Your task to perform on an android device: open app "ZOOM Cloud Meetings" (install if not already installed) Image 0: 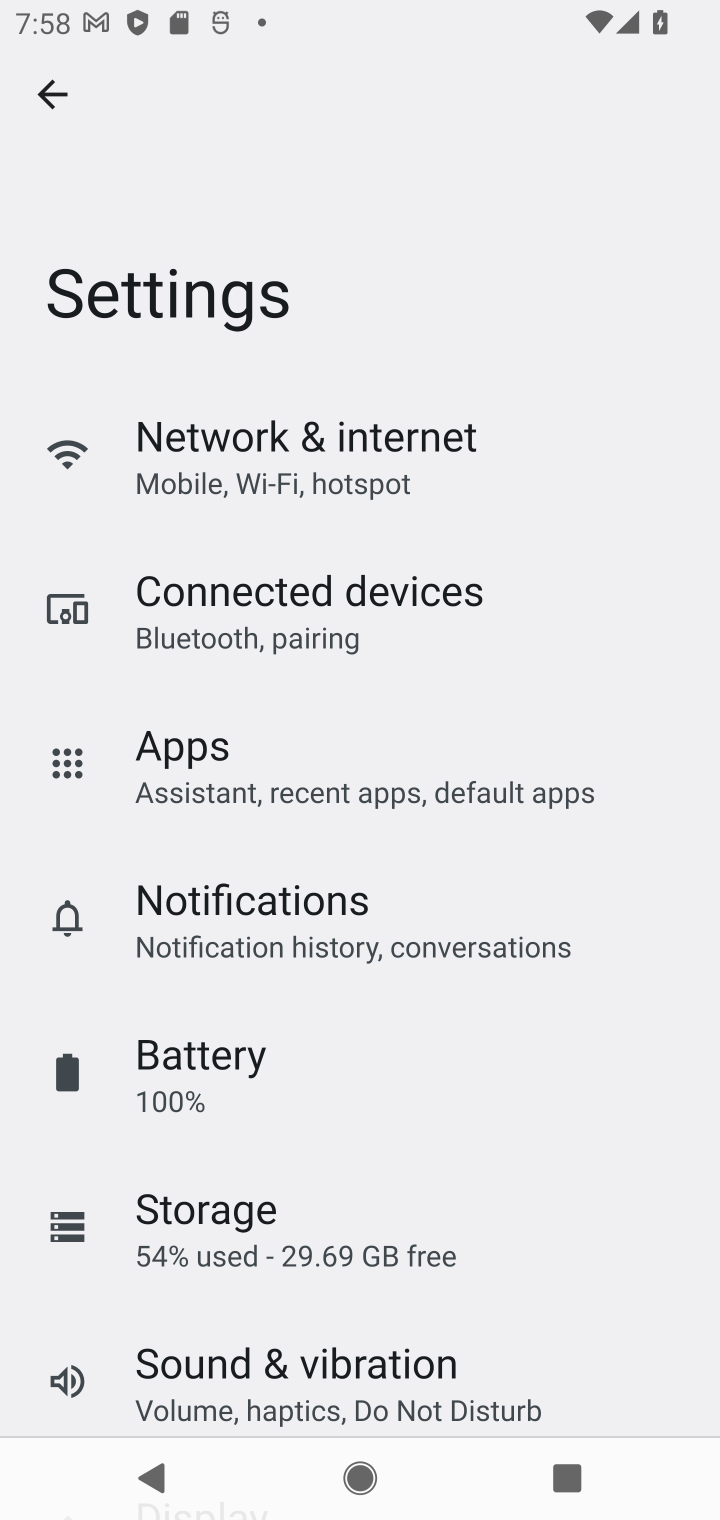
Step 0: press back button
Your task to perform on an android device: open app "ZOOM Cloud Meetings" (install if not already installed) Image 1: 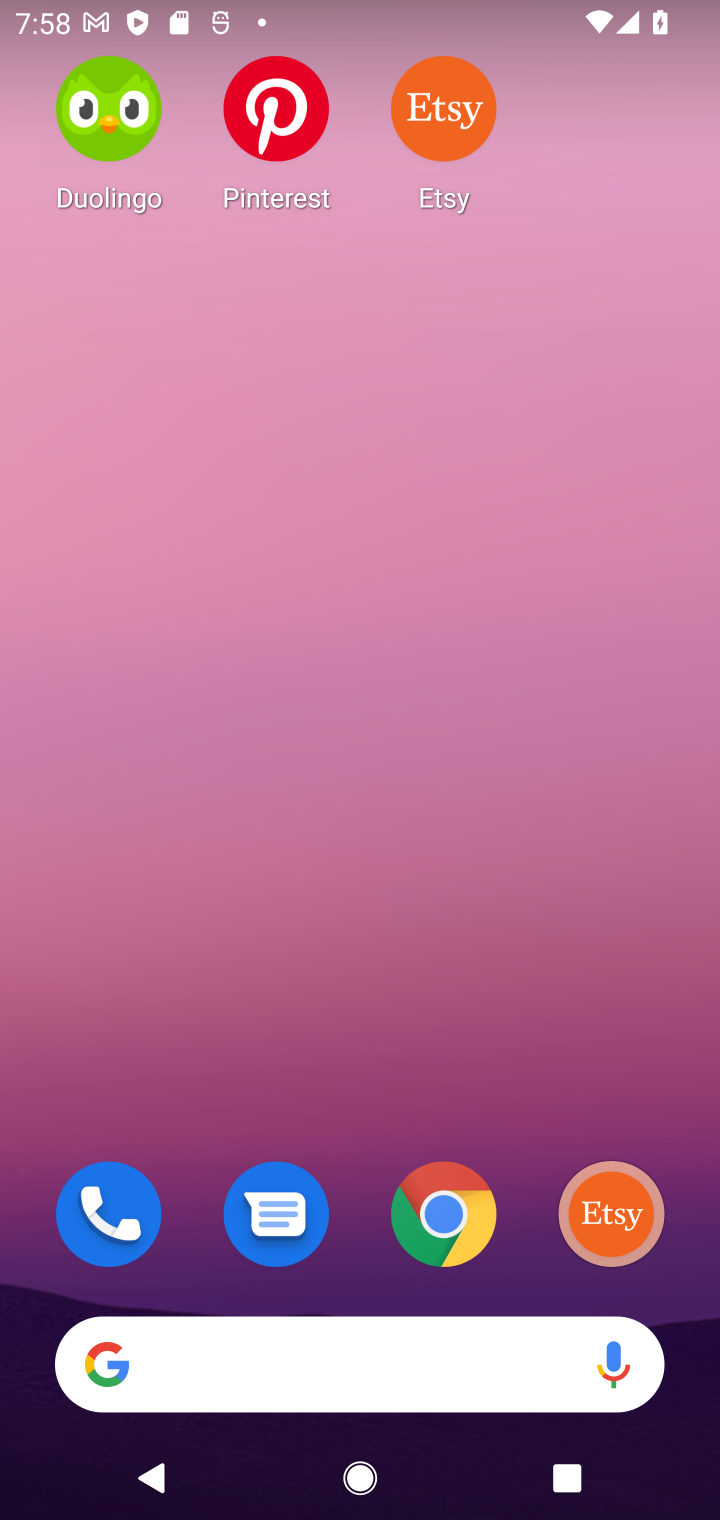
Step 1: drag from (359, 1093) to (387, 74)
Your task to perform on an android device: open app "ZOOM Cloud Meetings" (install if not already installed) Image 2: 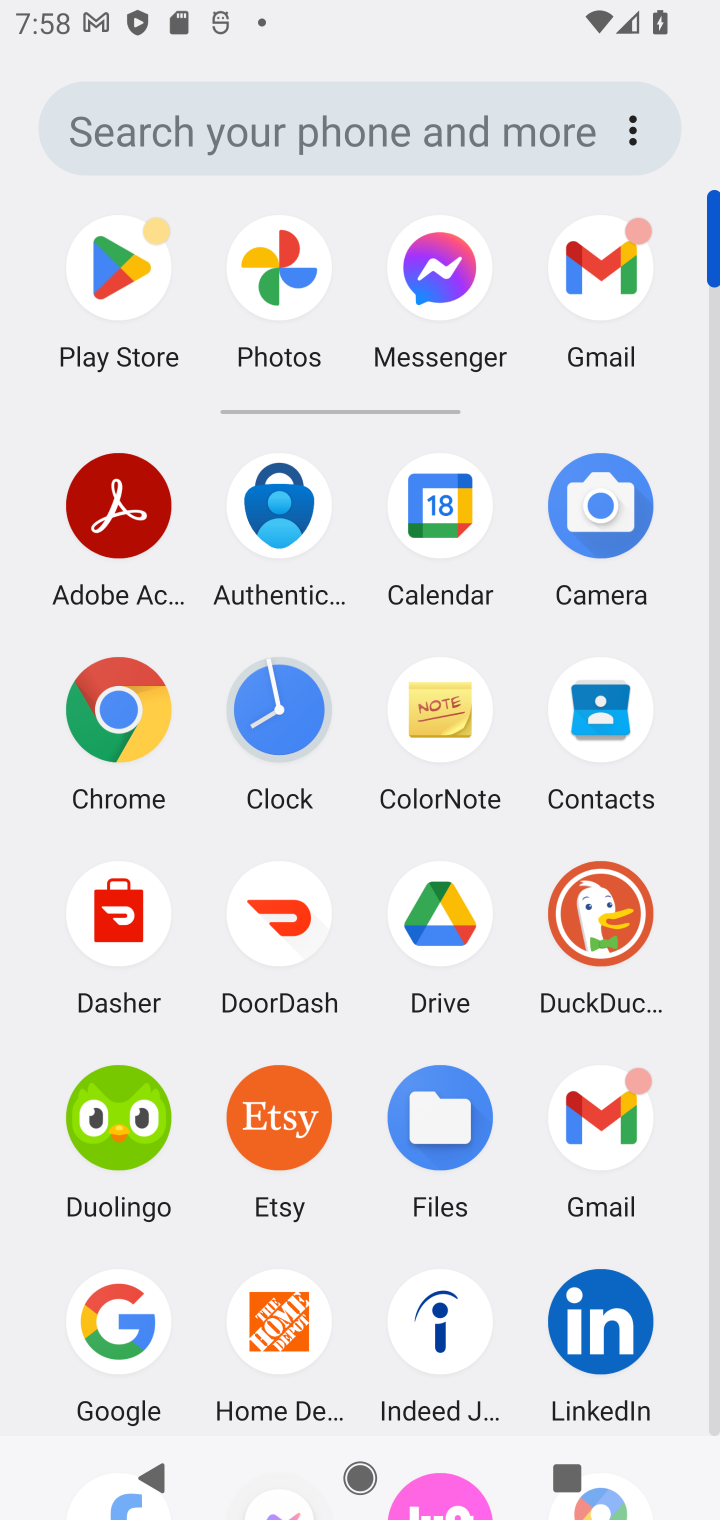
Step 2: click (140, 248)
Your task to perform on an android device: open app "ZOOM Cloud Meetings" (install if not already installed) Image 3: 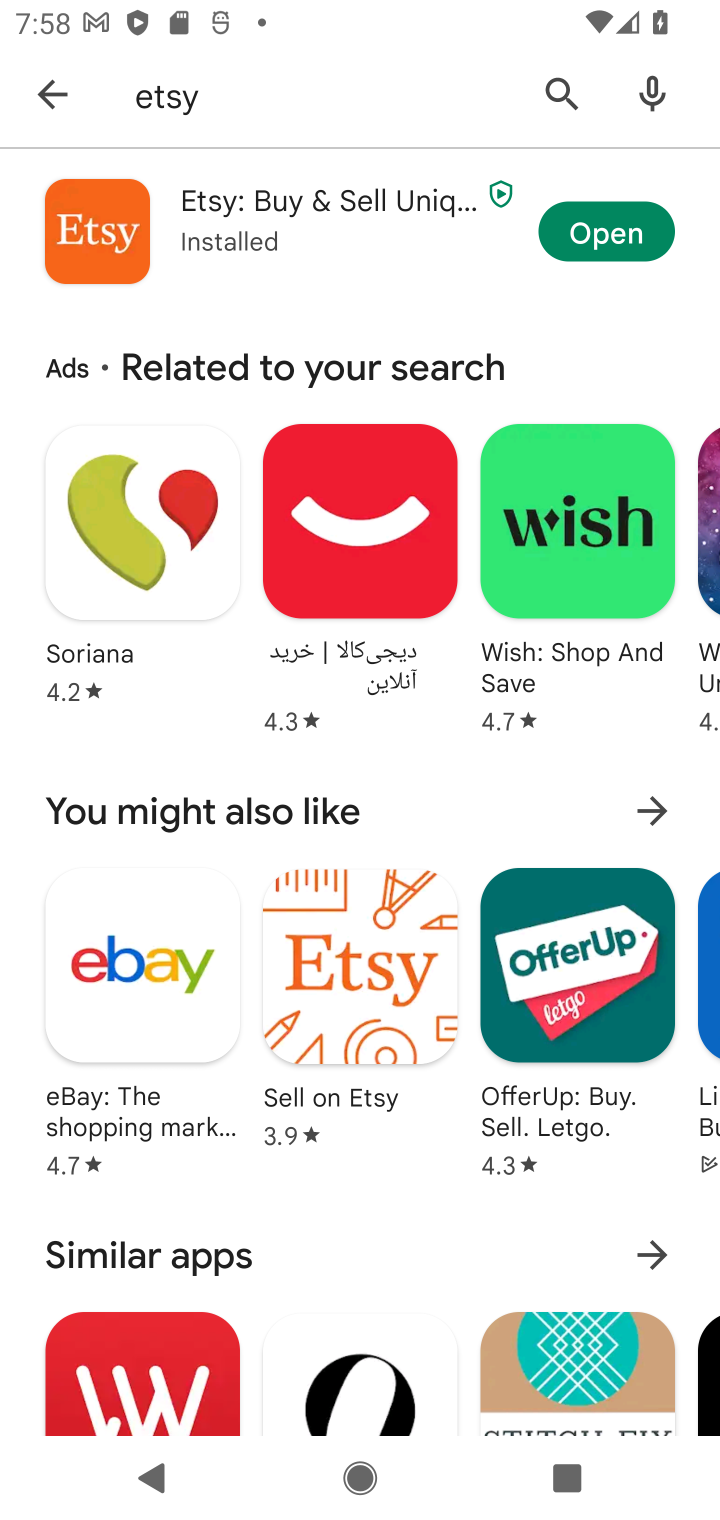
Step 3: click (559, 86)
Your task to perform on an android device: open app "ZOOM Cloud Meetings" (install if not already installed) Image 4: 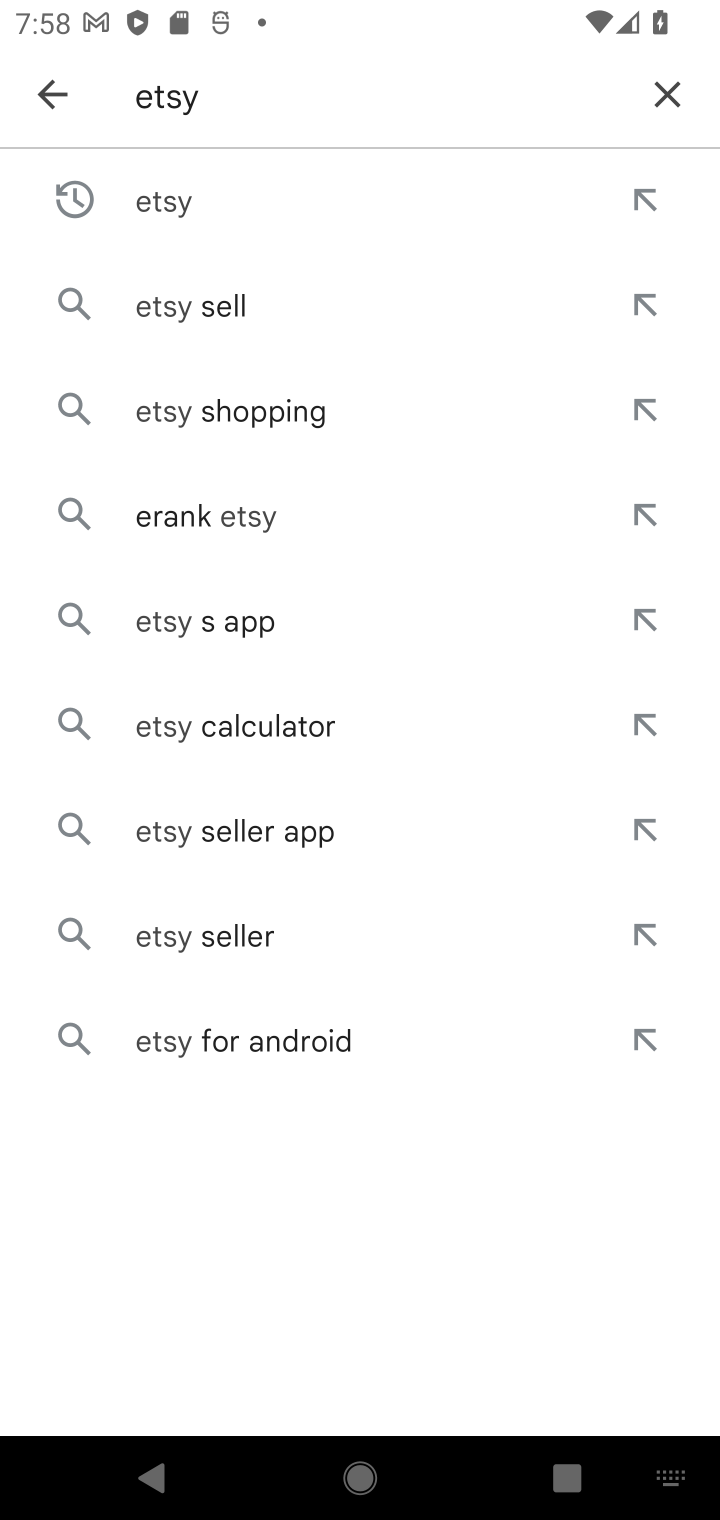
Step 4: click (673, 85)
Your task to perform on an android device: open app "ZOOM Cloud Meetings" (install if not already installed) Image 5: 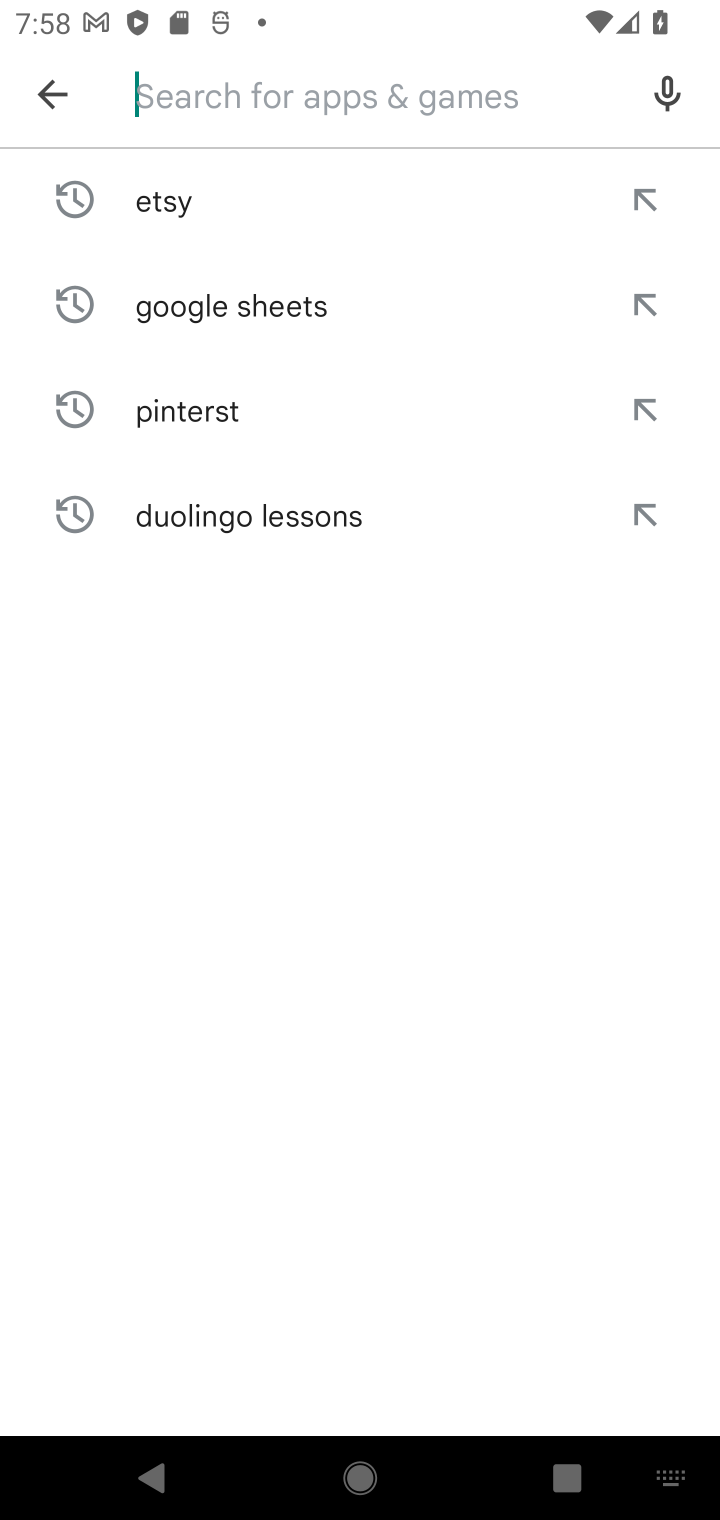
Step 5: click (357, 86)
Your task to perform on an android device: open app "ZOOM Cloud Meetings" (install if not already installed) Image 6: 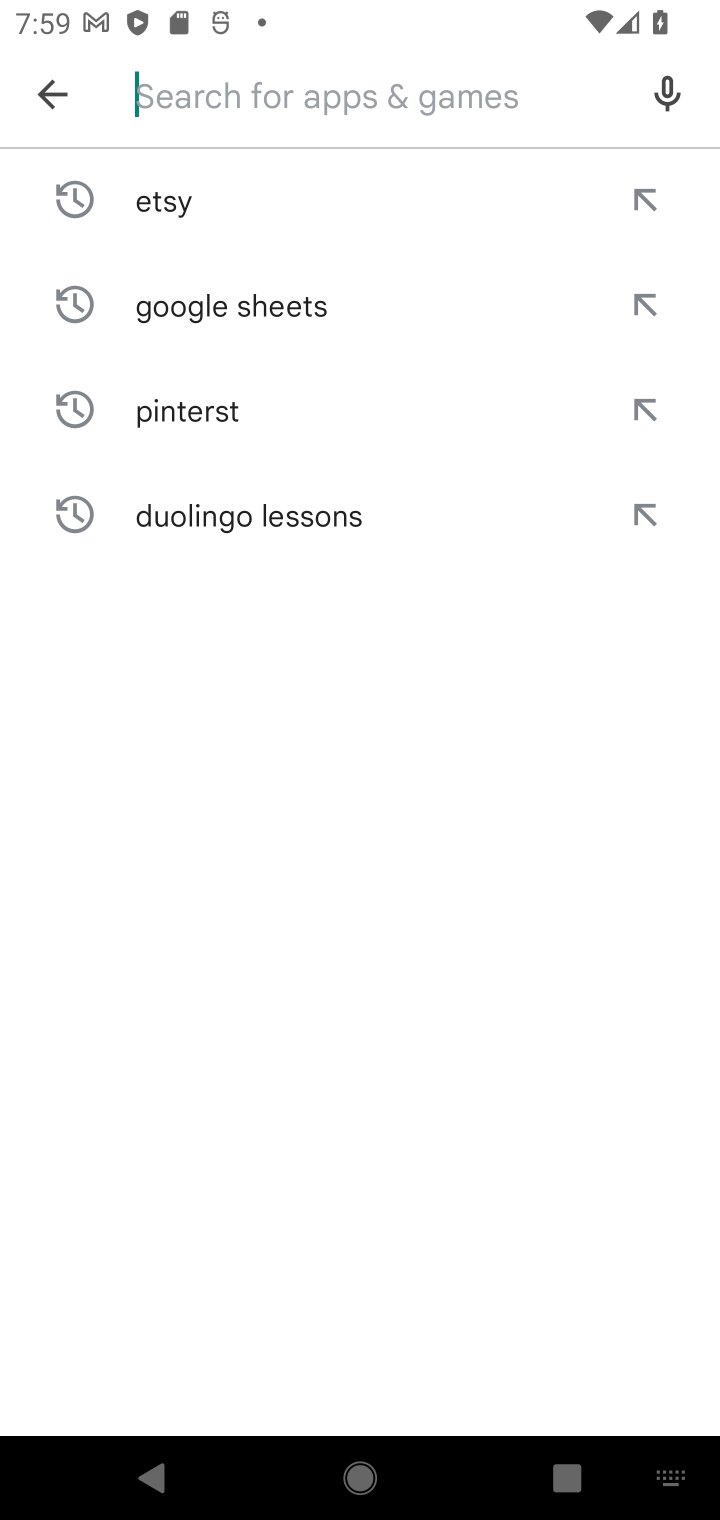
Step 6: type "ZOOM Cloud Meetings"
Your task to perform on an android device: open app "ZOOM Cloud Meetings" (install if not already installed) Image 7: 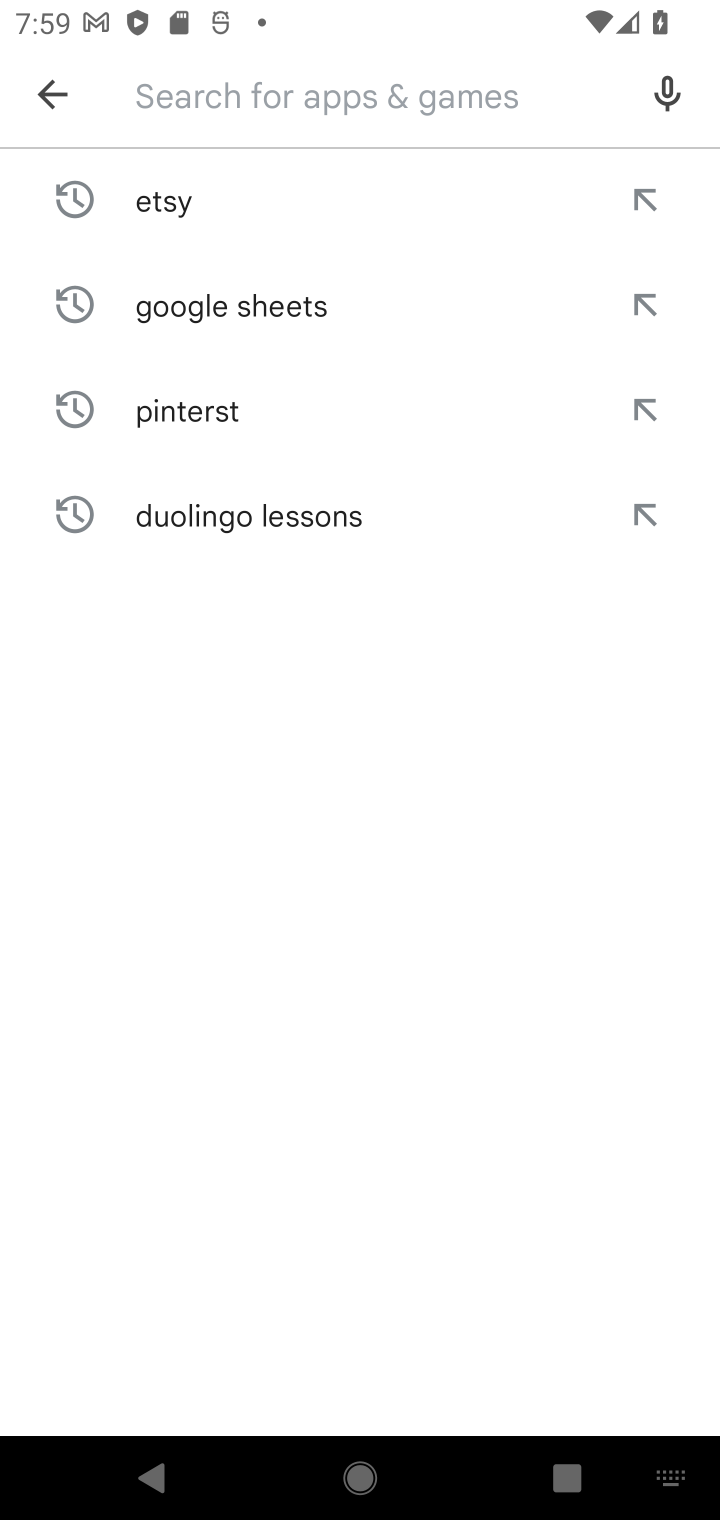
Step 7: click (394, 885)
Your task to perform on an android device: open app "ZOOM Cloud Meetings" (install if not already installed) Image 8: 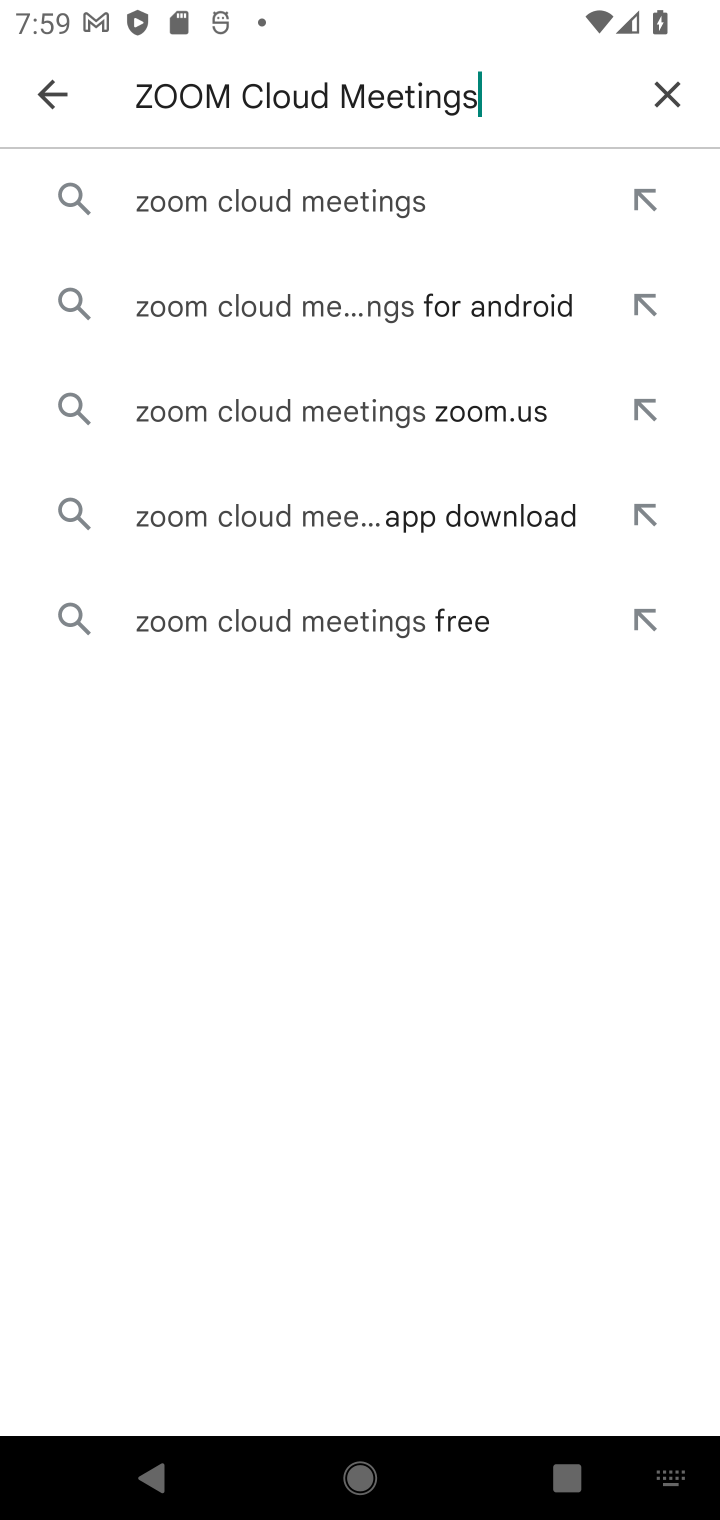
Step 8: click (383, 200)
Your task to perform on an android device: open app "ZOOM Cloud Meetings" (install if not already installed) Image 9: 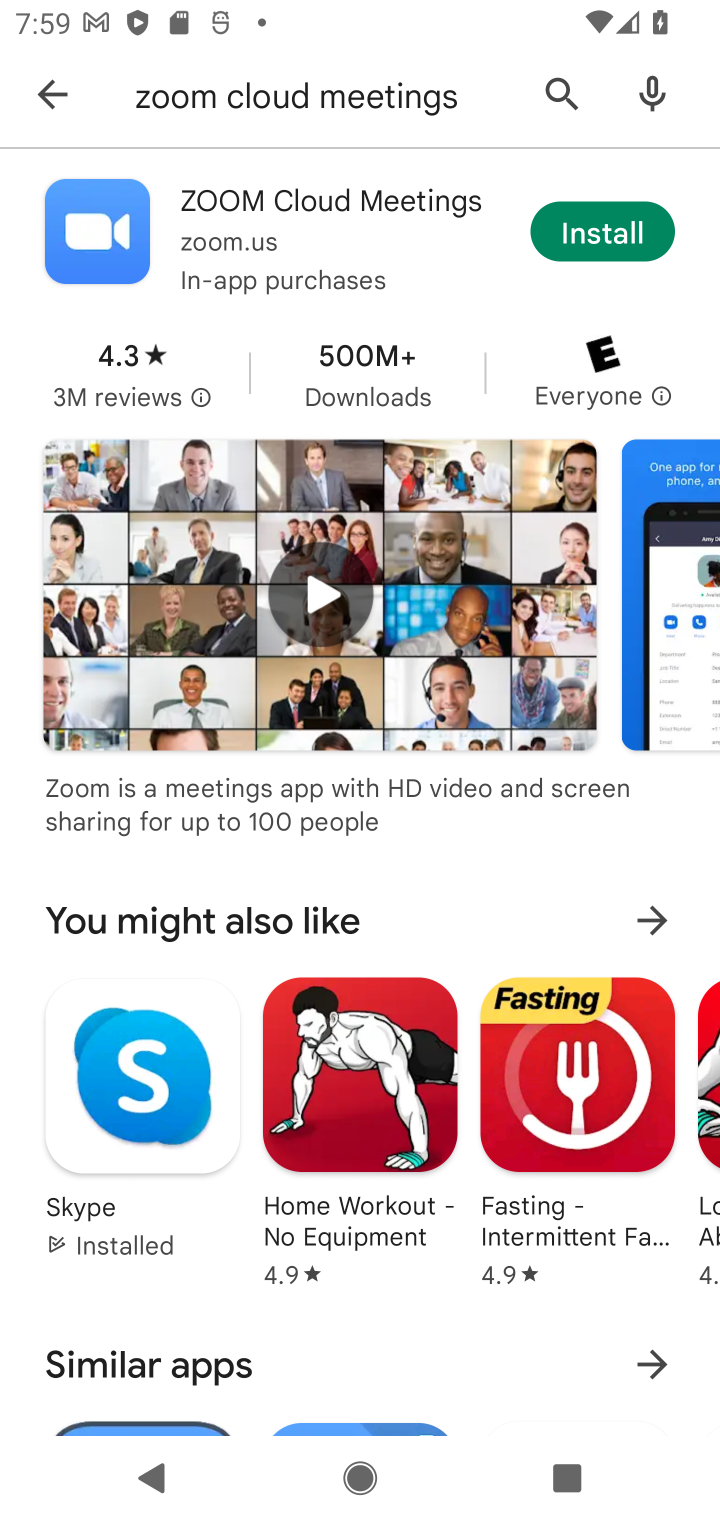
Step 9: click (597, 238)
Your task to perform on an android device: open app "ZOOM Cloud Meetings" (install if not already installed) Image 10: 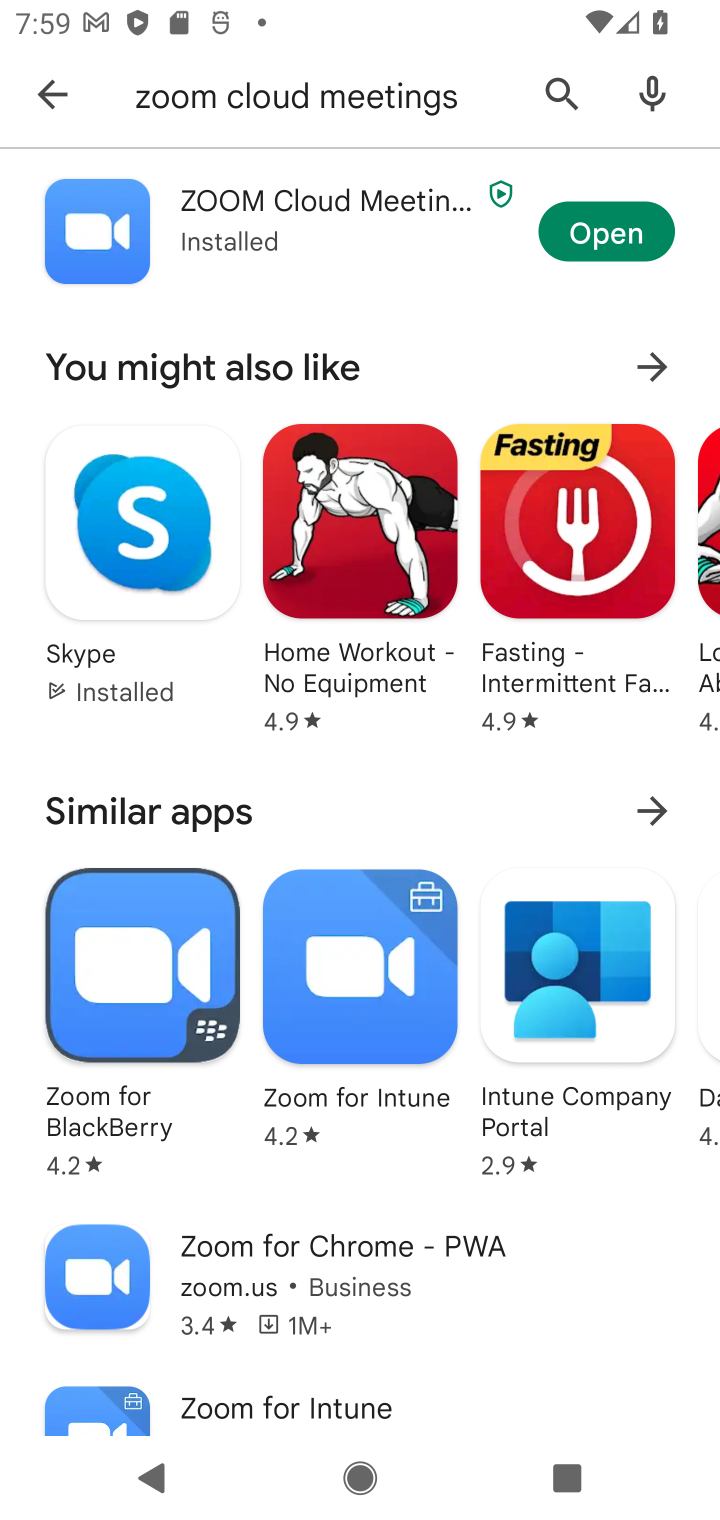
Step 10: click (585, 233)
Your task to perform on an android device: open app "ZOOM Cloud Meetings" (install if not already installed) Image 11: 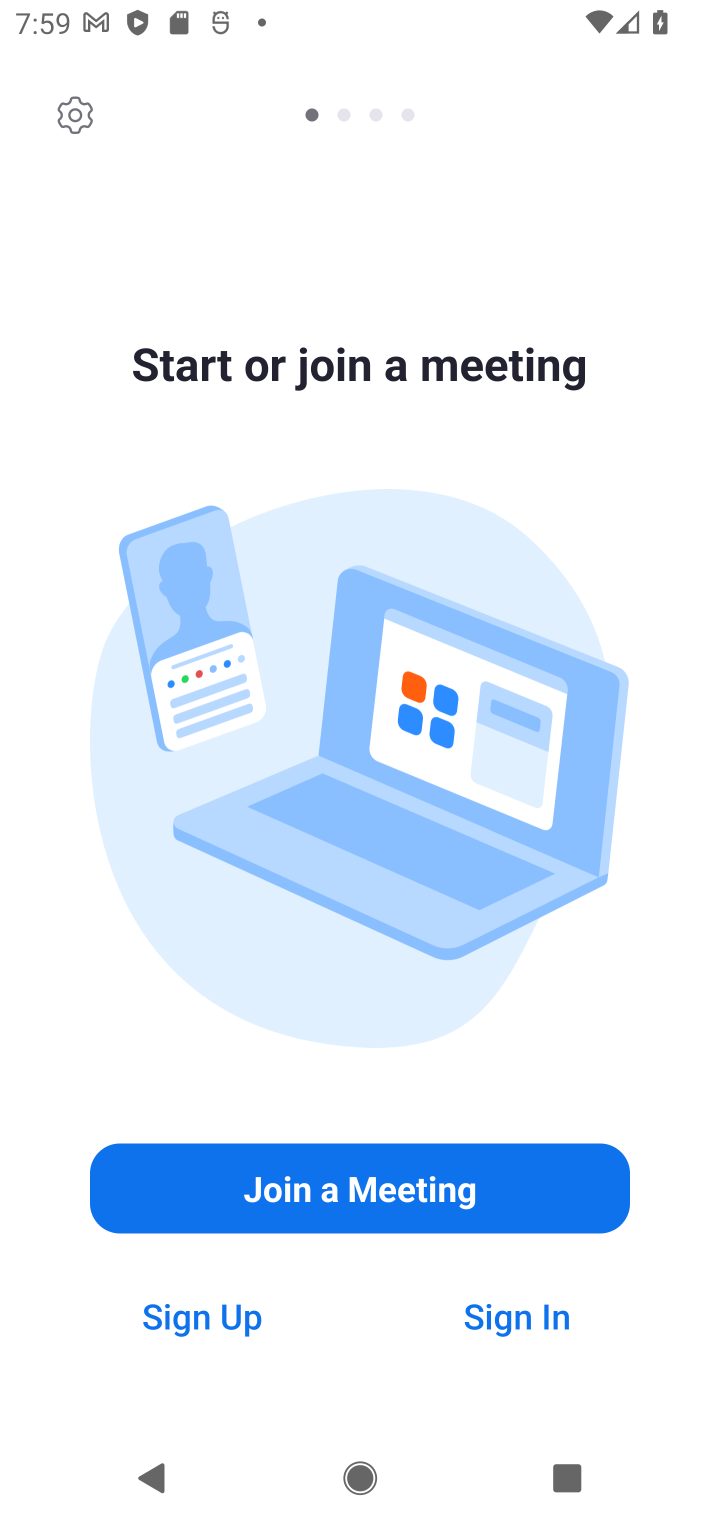
Step 11: task complete